Your task to perform on an android device: Open internet settings Image 0: 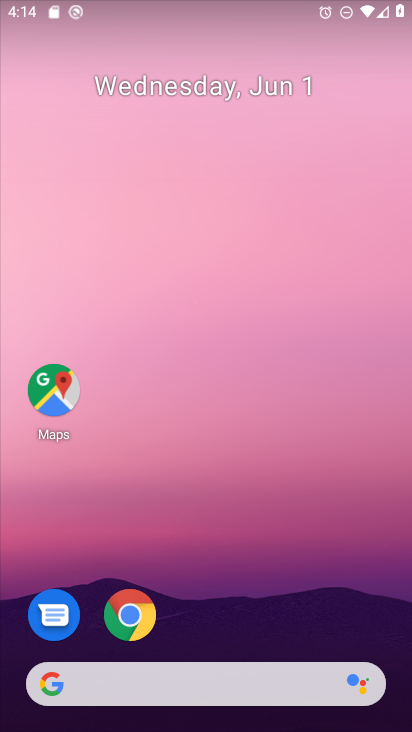
Step 0: press home button
Your task to perform on an android device: Open internet settings Image 1: 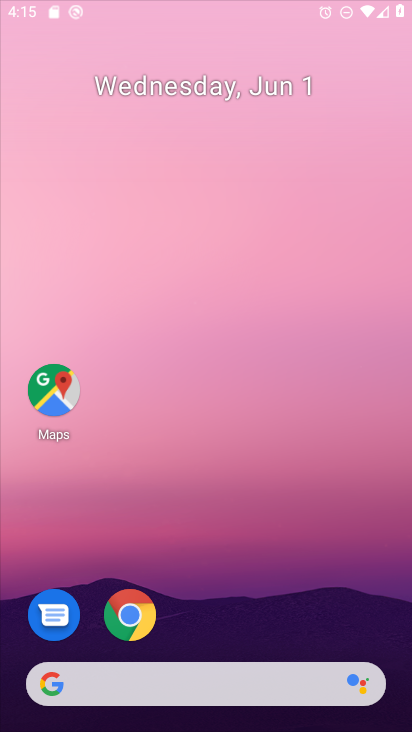
Step 1: drag from (225, 652) to (265, 54)
Your task to perform on an android device: Open internet settings Image 2: 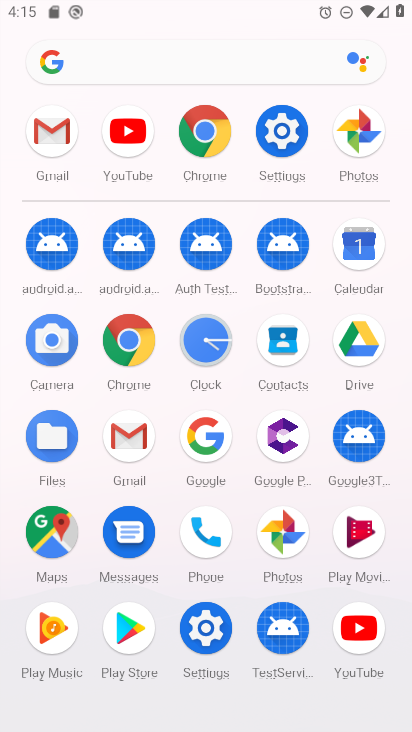
Step 2: click (281, 125)
Your task to perform on an android device: Open internet settings Image 3: 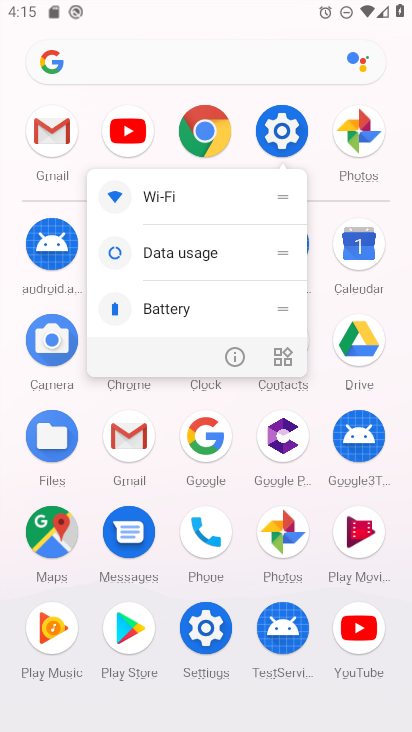
Step 3: click (279, 127)
Your task to perform on an android device: Open internet settings Image 4: 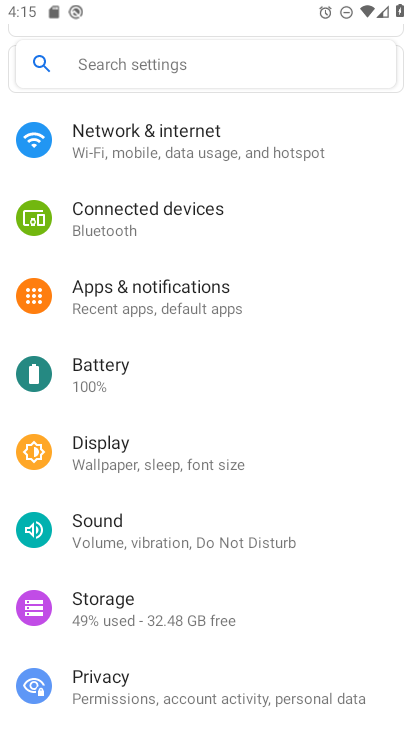
Step 4: click (176, 144)
Your task to perform on an android device: Open internet settings Image 5: 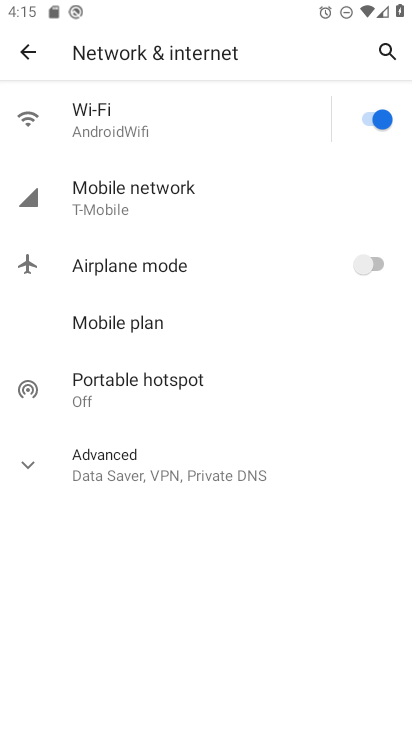
Step 5: click (31, 466)
Your task to perform on an android device: Open internet settings Image 6: 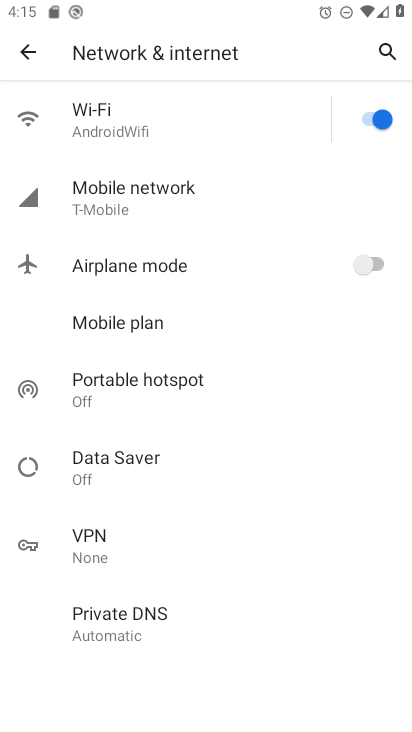
Step 6: task complete